Your task to perform on an android device: Open the calendar app, open the side menu, and click the "Day" option Image 0: 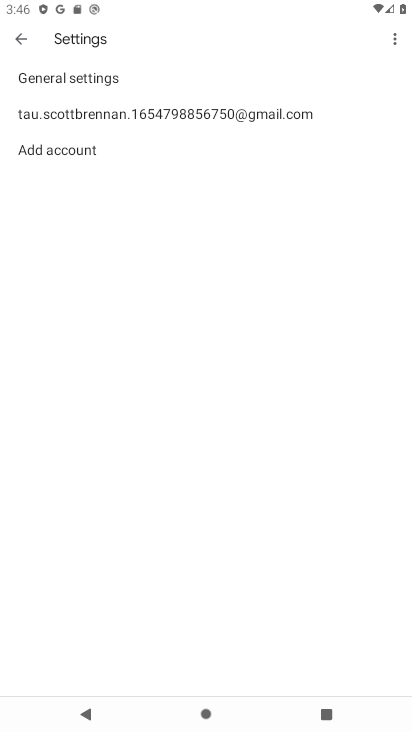
Step 0: click (184, 121)
Your task to perform on an android device: Open the calendar app, open the side menu, and click the "Day" option Image 1: 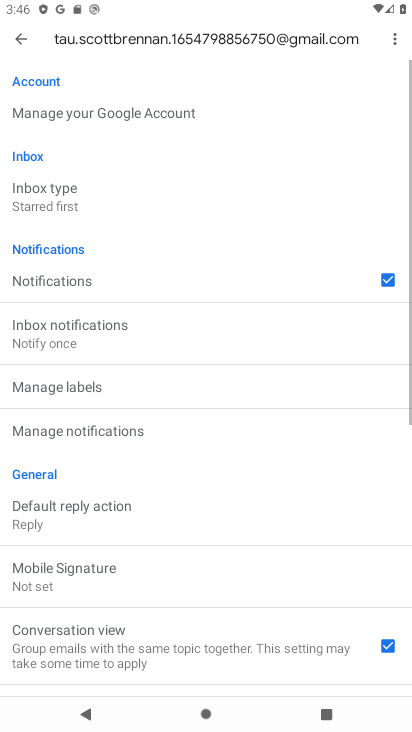
Step 1: task complete